Your task to perform on an android device: Is it going to rain today? Image 0: 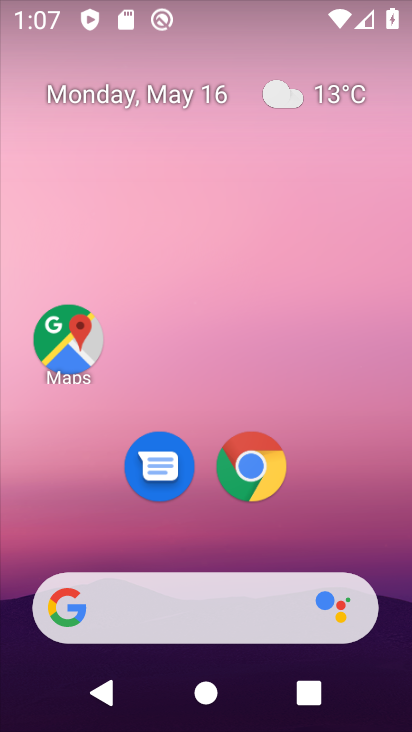
Step 0: click (324, 92)
Your task to perform on an android device: Is it going to rain today? Image 1: 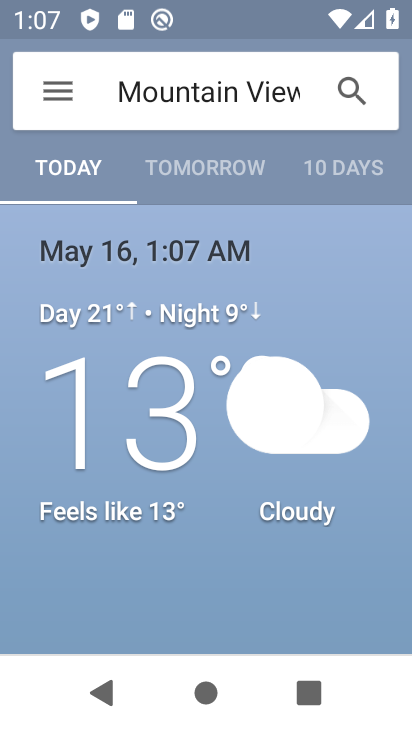
Step 1: task complete